Your task to perform on an android device: change the clock display to show seconds Image 0: 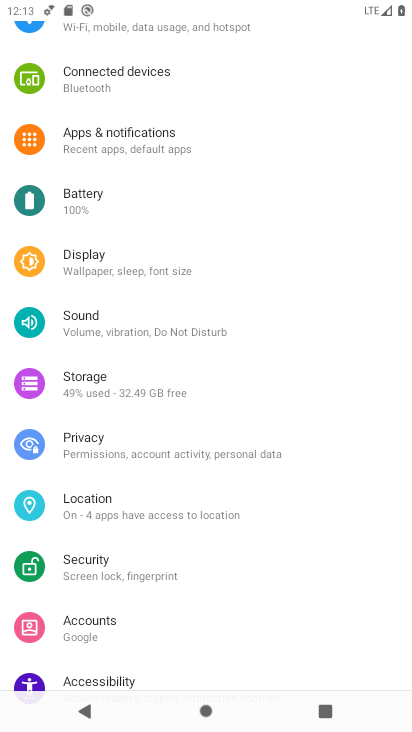
Step 0: press home button
Your task to perform on an android device: change the clock display to show seconds Image 1: 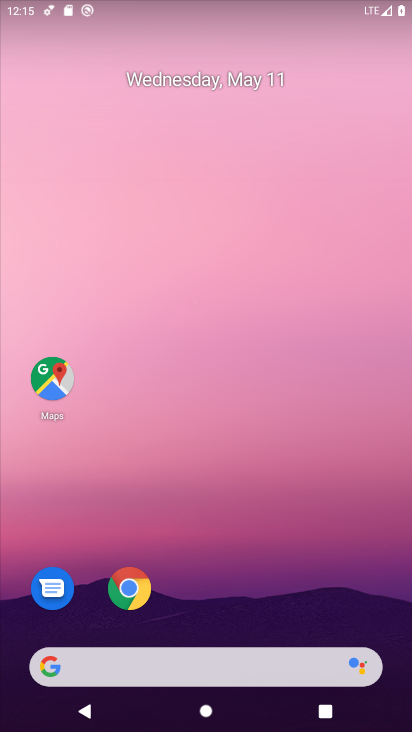
Step 1: drag from (208, 645) to (199, 211)
Your task to perform on an android device: change the clock display to show seconds Image 2: 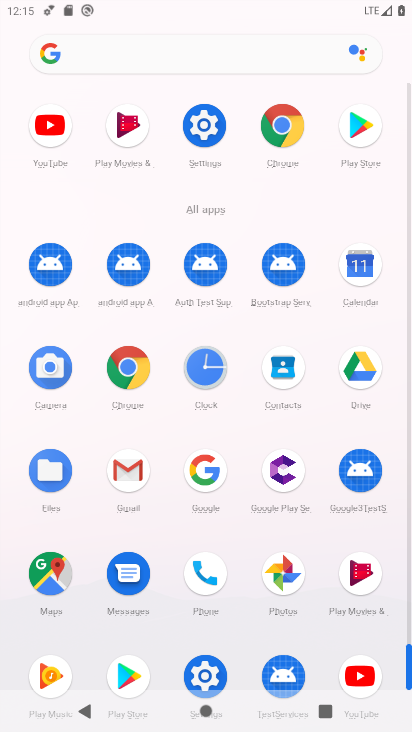
Step 2: click (203, 382)
Your task to perform on an android device: change the clock display to show seconds Image 3: 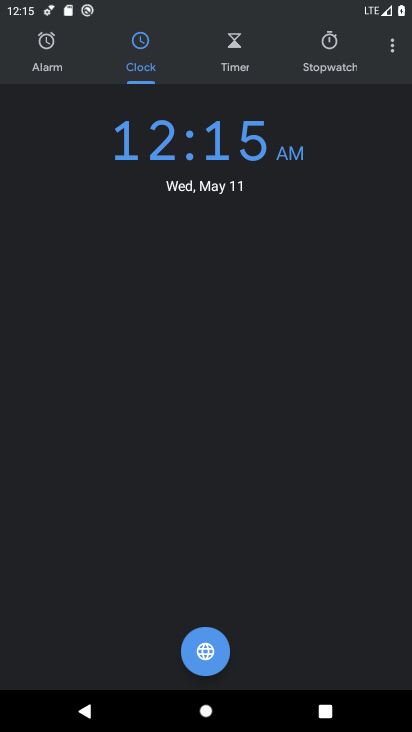
Step 3: click (387, 48)
Your task to perform on an android device: change the clock display to show seconds Image 4: 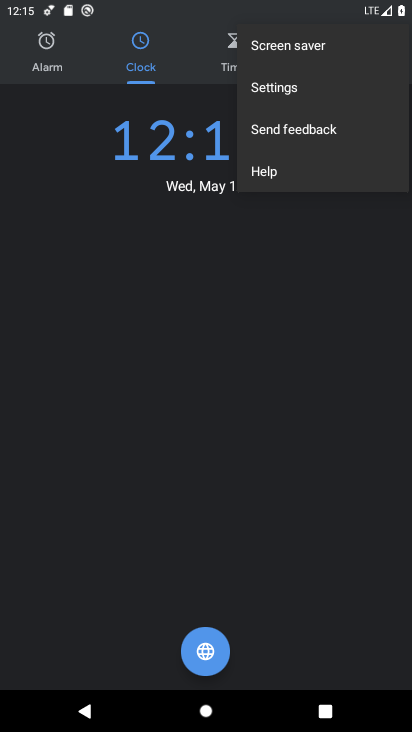
Step 4: click (279, 91)
Your task to perform on an android device: change the clock display to show seconds Image 5: 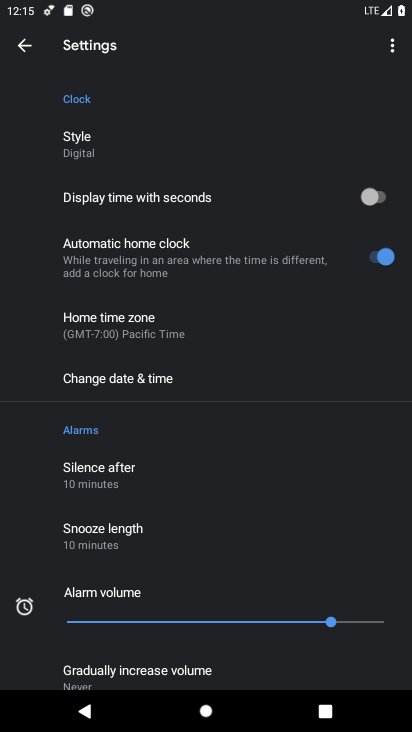
Step 5: click (383, 197)
Your task to perform on an android device: change the clock display to show seconds Image 6: 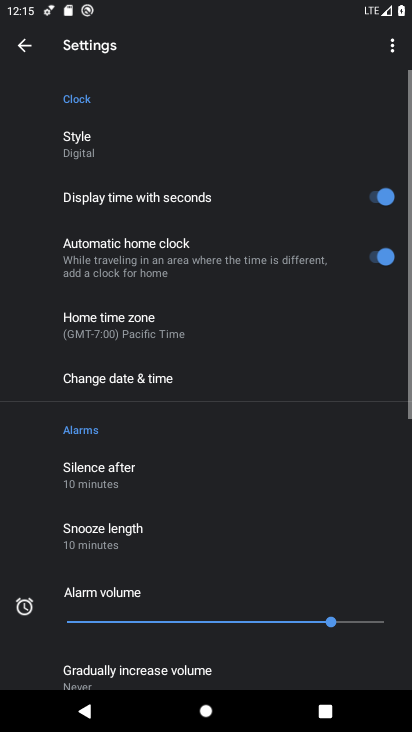
Step 6: task complete